Your task to perform on an android device: move an email to a new category in the gmail app Image 0: 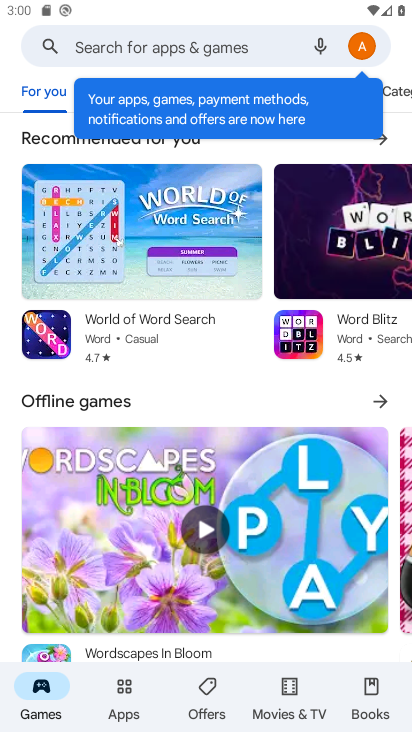
Step 0: press back button
Your task to perform on an android device: move an email to a new category in the gmail app Image 1: 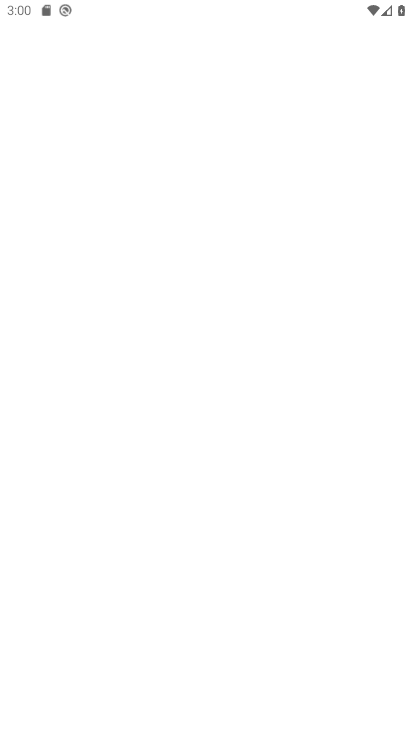
Step 1: press home button
Your task to perform on an android device: move an email to a new category in the gmail app Image 2: 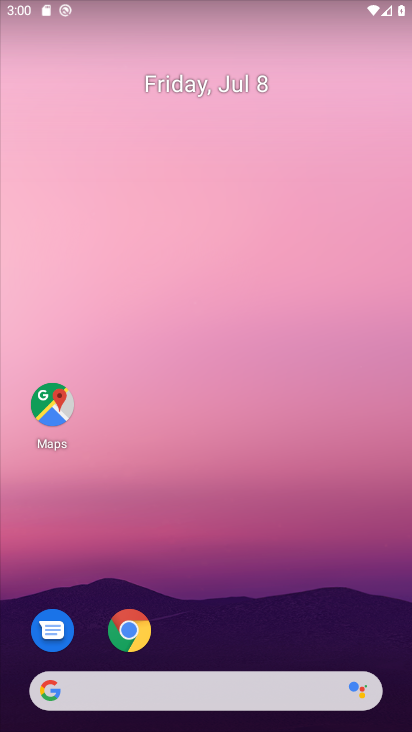
Step 2: press home button
Your task to perform on an android device: move an email to a new category in the gmail app Image 3: 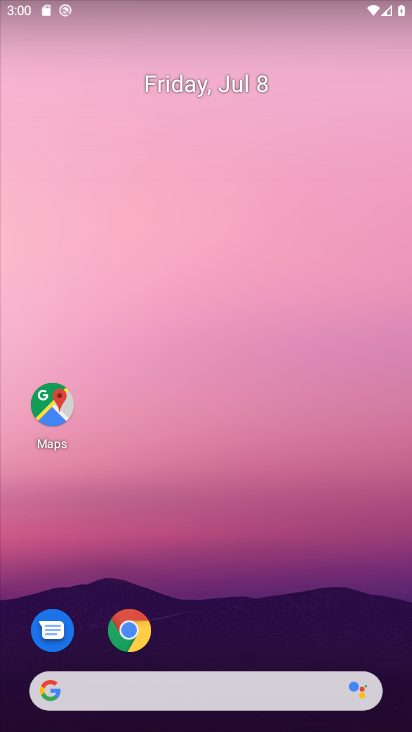
Step 3: drag from (295, 633) to (181, 99)
Your task to perform on an android device: move an email to a new category in the gmail app Image 4: 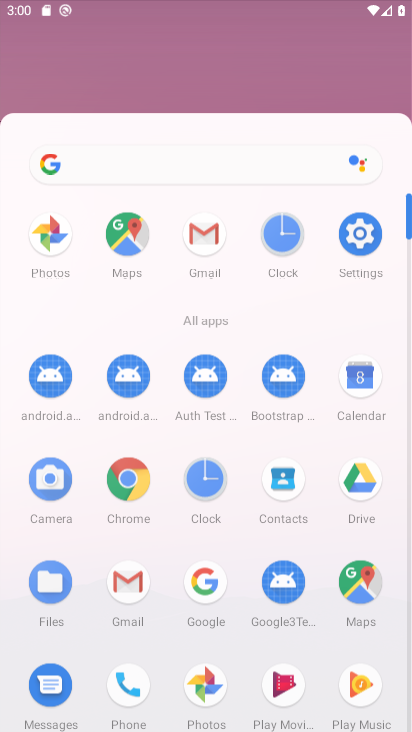
Step 4: drag from (90, 113) to (175, 196)
Your task to perform on an android device: move an email to a new category in the gmail app Image 5: 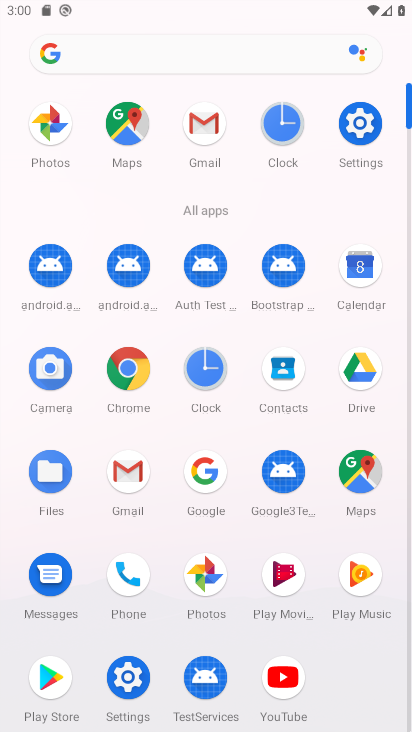
Step 5: drag from (330, 559) to (117, 103)
Your task to perform on an android device: move an email to a new category in the gmail app Image 6: 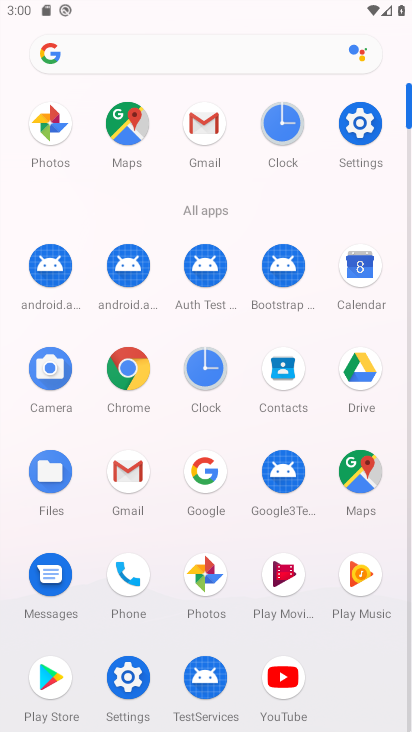
Step 6: click (130, 474)
Your task to perform on an android device: move an email to a new category in the gmail app Image 7: 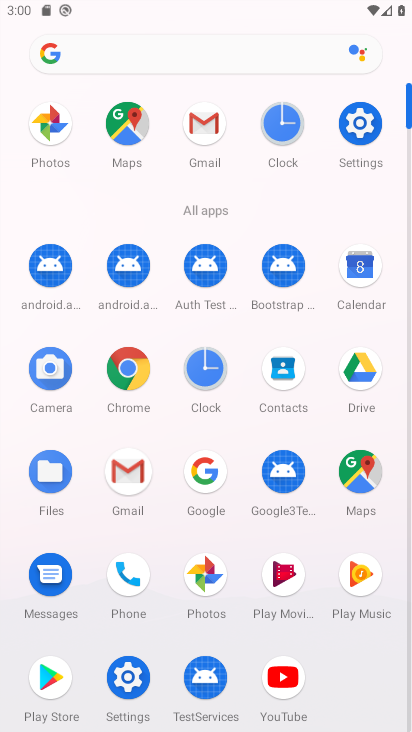
Step 7: click (127, 471)
Your task to perform on an android device: move an email to a new category in the gmail app Image 8: 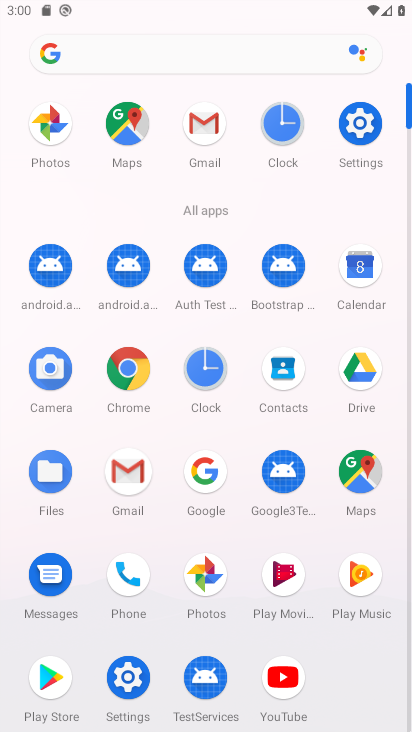
Step 8: task complete